Your task to perform on an android device: When is my next appointment? Image 0: 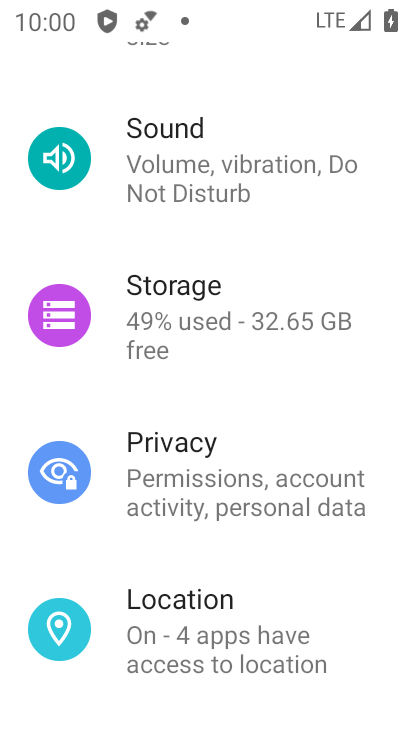
Step 0: press home button
Your task to perform on an android device: When is my next appointment? Image 1: 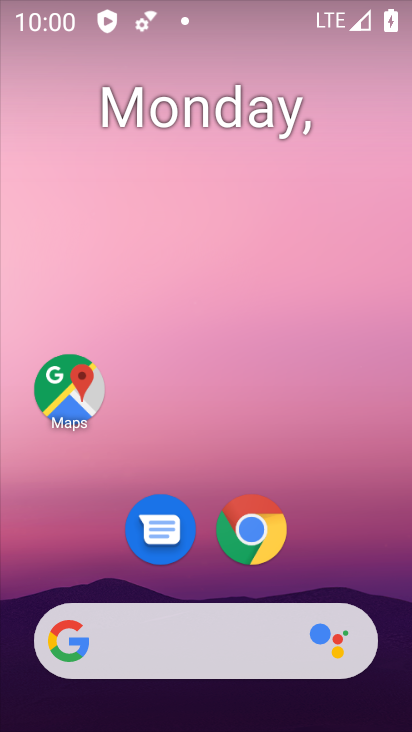
Step 1: drag from (3, 717) to (258, 97)
Your task to perform on an android device: When is my next appointment? Image 2: 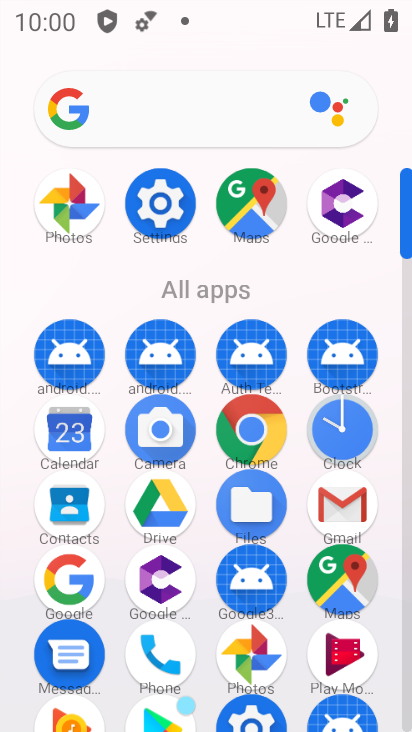
Step 2: click (87, 432)
Your task to perform on an android device: When is my next appointment? Image 3: 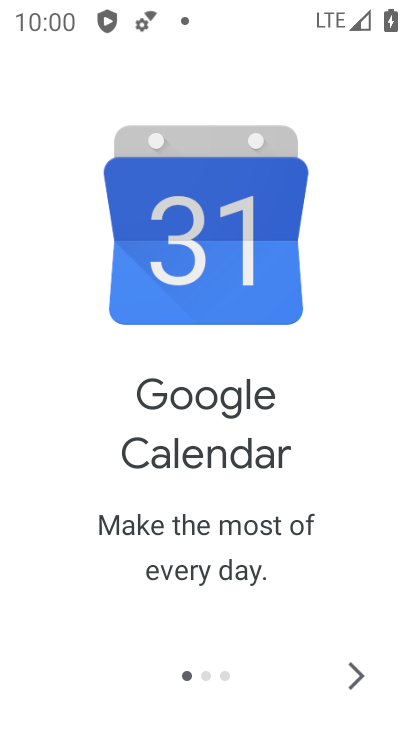
Step 3: click (362, 676)
Your task to perform on an android device: When is my next appointment? Image 4: 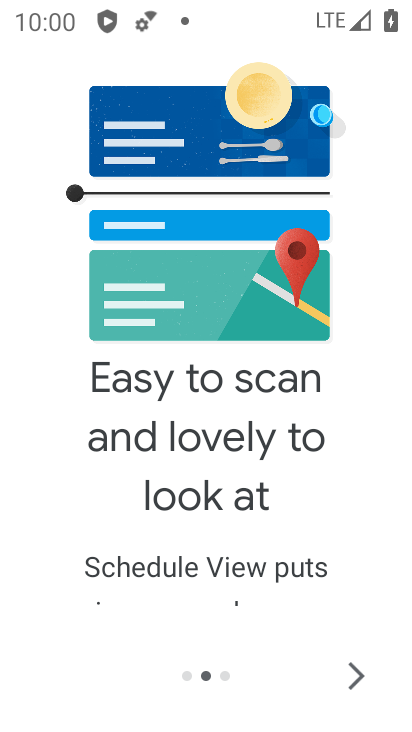
Step 4: click (362, 676)
Your task to perform on an android device: When is my next appointment? Image 5: 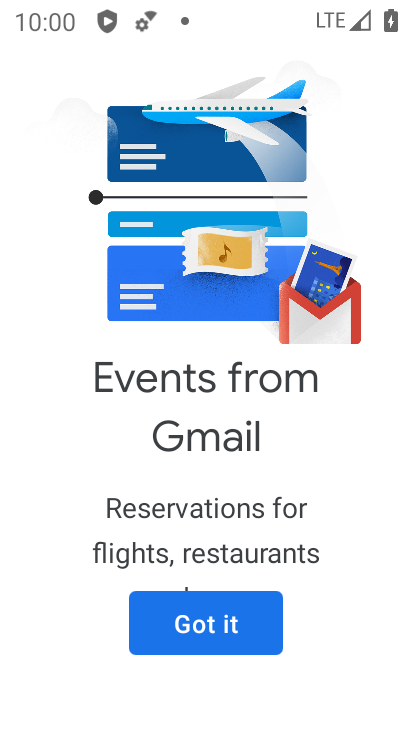
Step 5: click (225, 616)
Your task to perform on an android device: When is my next appointment? Image 6: 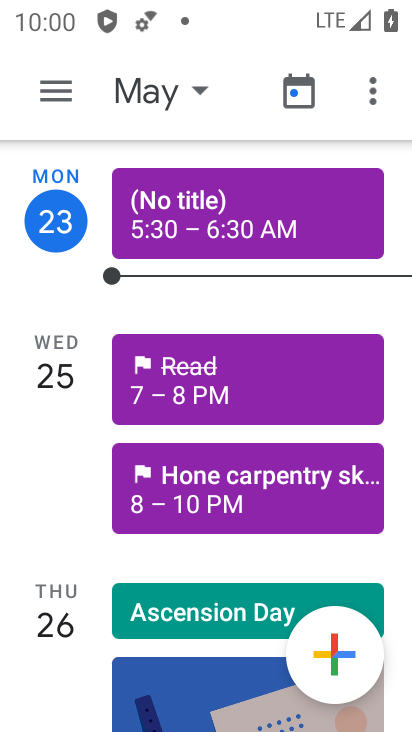
Step 6: click (162, 93)
Your task to perform on an android device: When is my next appointment? Image 7: 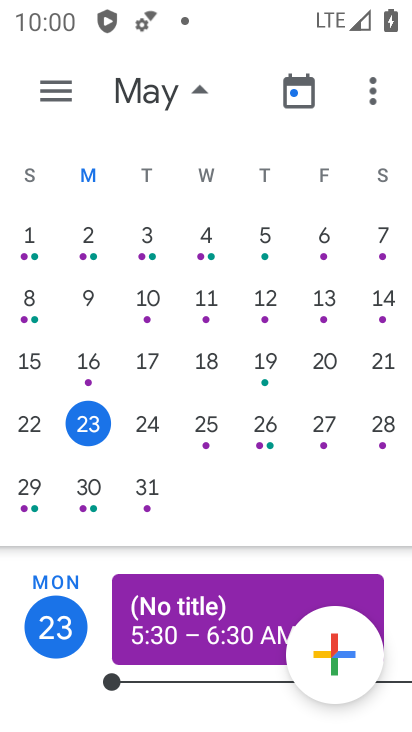
Step 7: click (152, 427)
Your task to perform on an android device: When is my next appointment? Image 8: 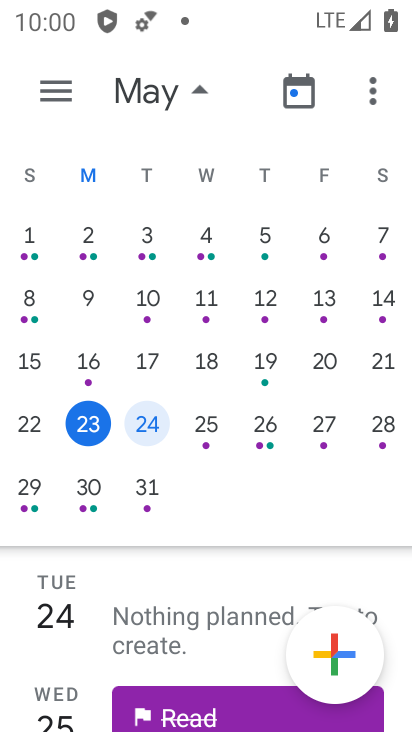
Step 8: task complete